Your task to perform on an android device: check storage Image 0: 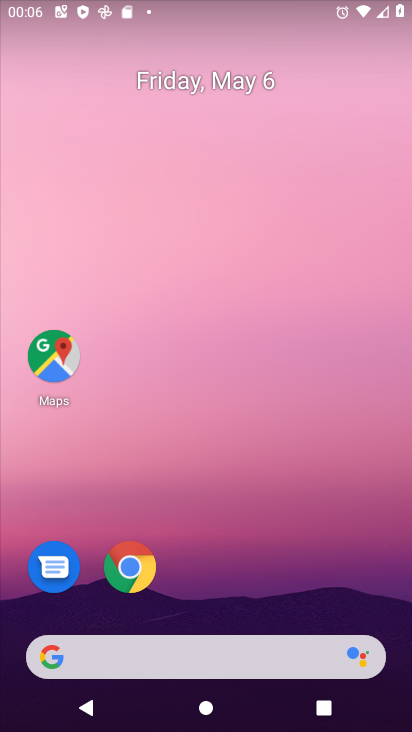
Step 0: drag from (214, 570) to (193, 162)
Your task to perform on an android device: check storage Image 1: 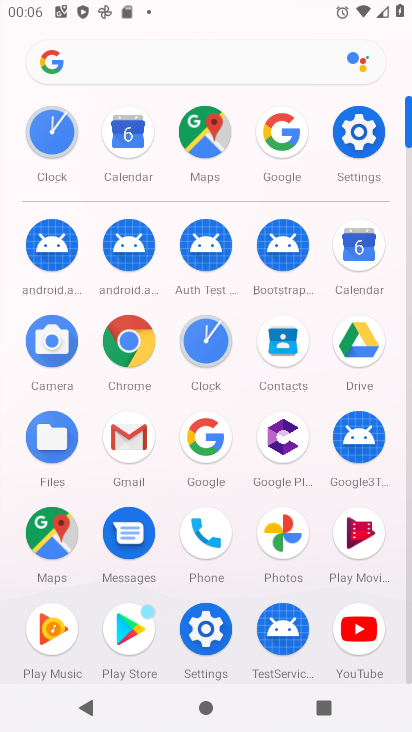
Step 1: click (349, 128)
Your task to perform on an android device: check storage Image 2: 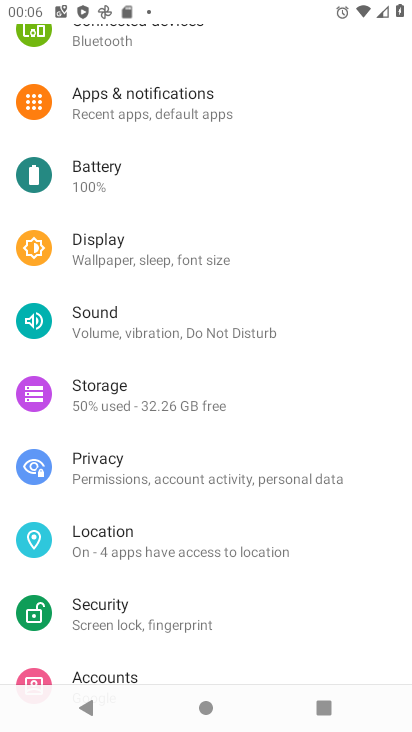
Step 2: click (150, 385)
Your task to perform on an android device: check storage Image 3: 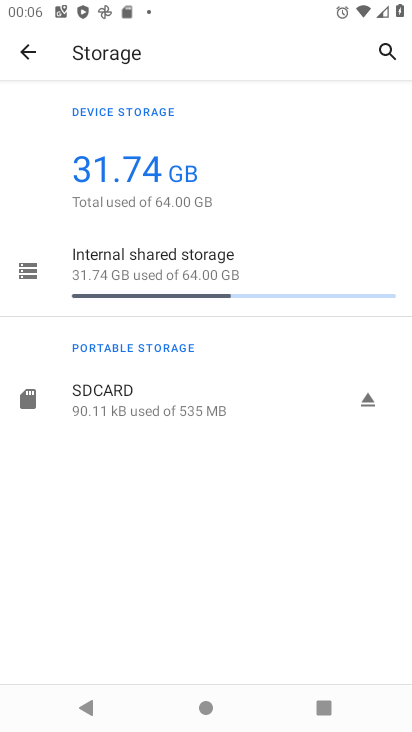
Step 3: click (201, 283)
Your task to perform on an android device: check storage Image 4: 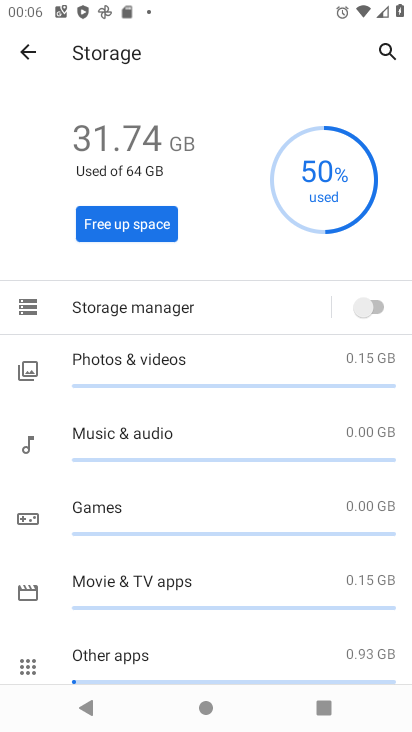
Step 4: task complete